Your task to perform on an android device: Toggle the flashlight Image 0: 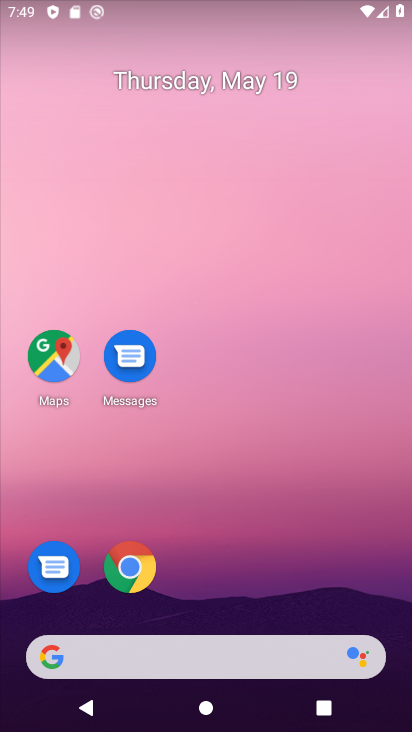
Step 0: drag from (216, 609) to (194, 193)
Your task to perform on an android device: Toggle the flashlight Image 1: 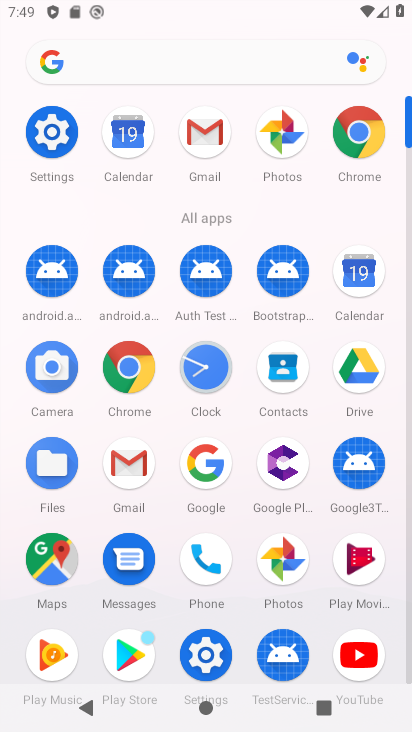
Step 1: click (39, 136)
Your task to perform on an android device: Toggle the flashlight Image 2: 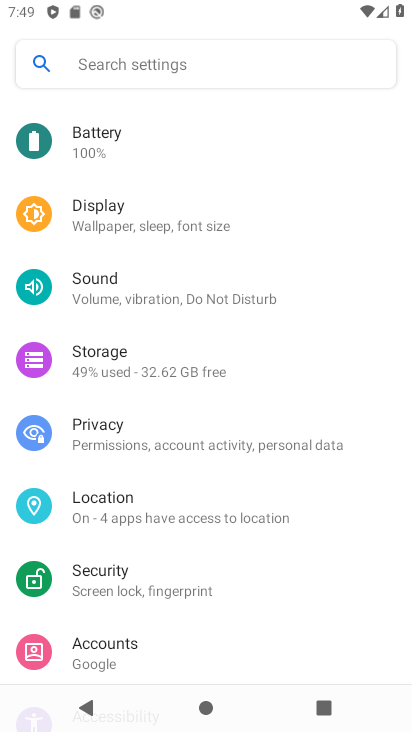
Step 2: task complete